Your task to perform on an android device: turn off notifications settings in the gmail app Image 0: 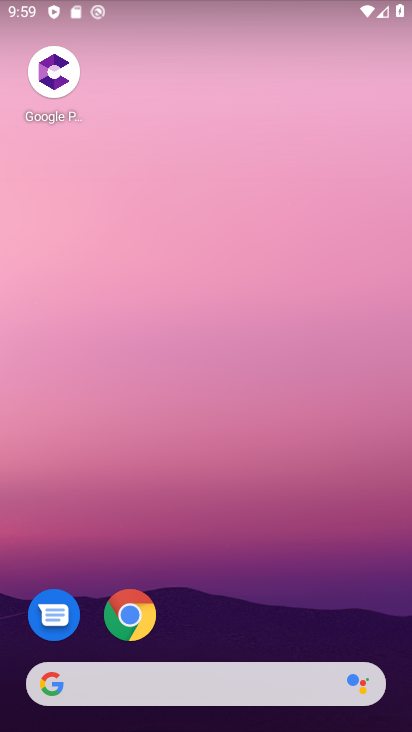
Step 0: click (192, 629)
Your task to perform on an android device: turn off notifications settings in the gmail app Image 1: 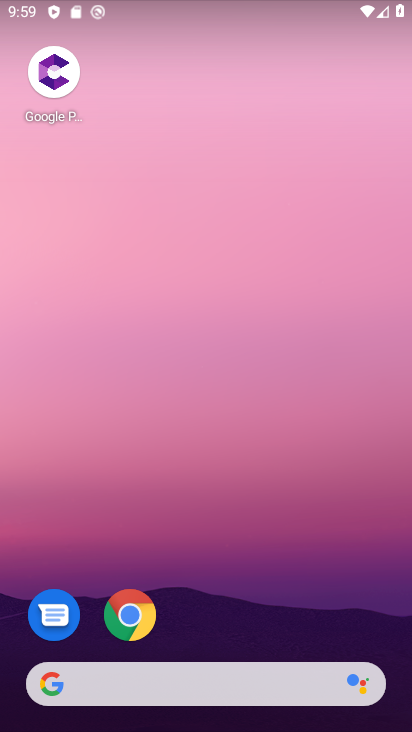
Step 1: drag from (192, 629) to (252, 142)
Your task to perform on an android device: turn off notifications settings in the gmail app Image 2: 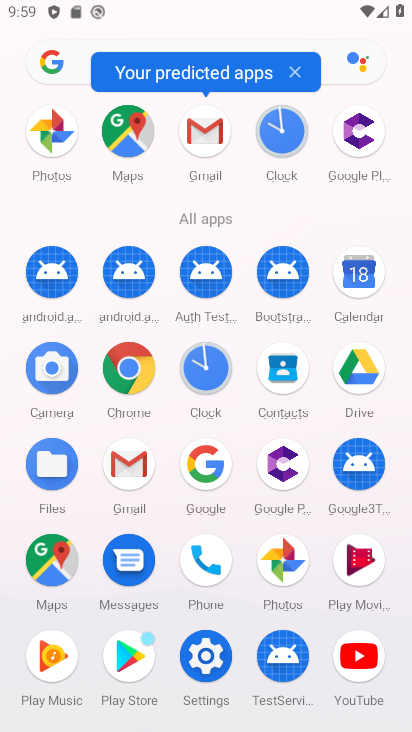
Step 2: click (204, 668)
Your task to perform on an android device: turn off notifications settings in the gmail app Image 3: 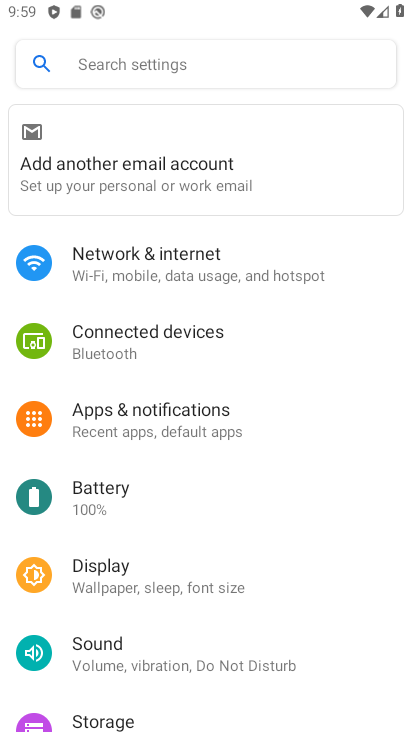
Step 3: click (237, 418)
Your task to perform on an android device: turn off notifications settings in the gmail app Image 4: 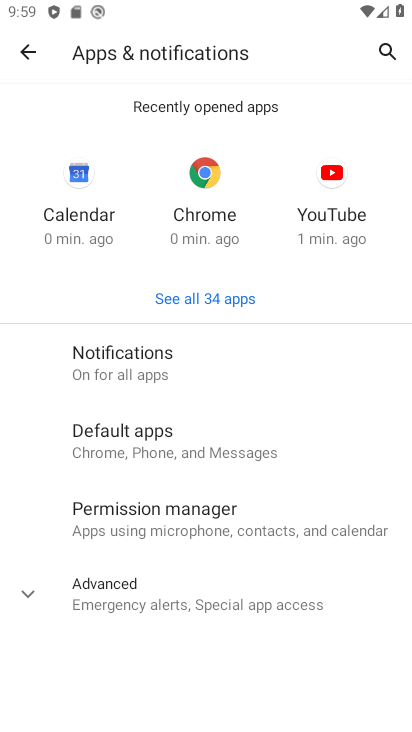
Step 4: click (172, 392)
Your task to perform on an android device: turn off notifications settings in the gmail app Image 5: 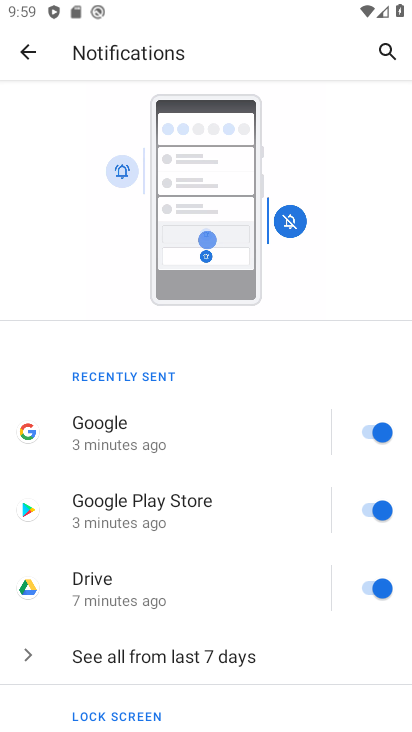
Step 5: drag from (95, 653) to (147, 205)
Your task to perform on an android device: turn off notifications settings in the gmail app Image 6: 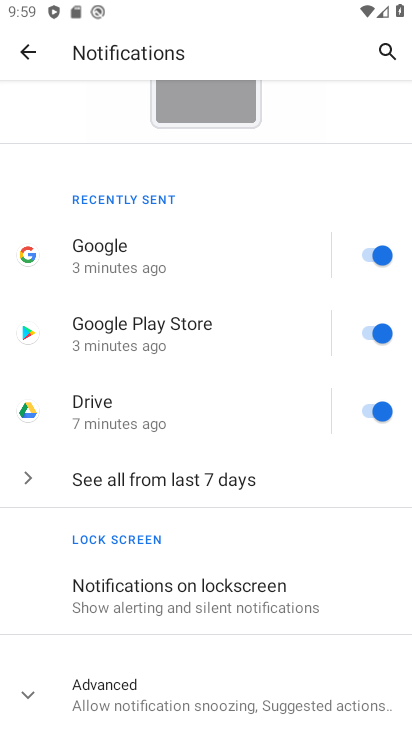
Step 6: click (167, 478)
Your task to perform on an android device: turn off notifications settings in the gmail app Image 7: 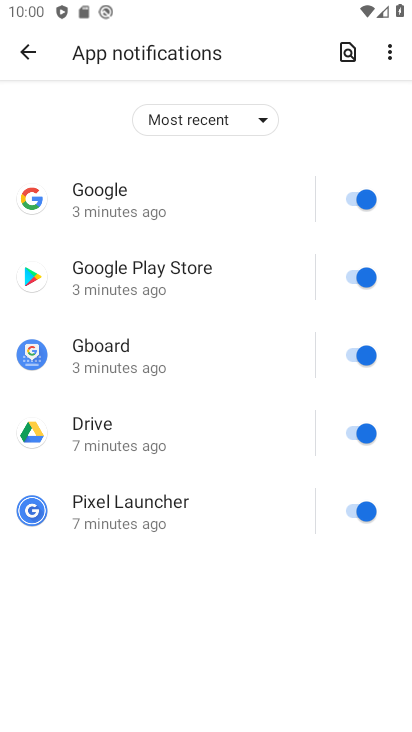
Step 7: press back button
Your task to perform on an android device: turn off notifications settings in the gmail app Image 8: 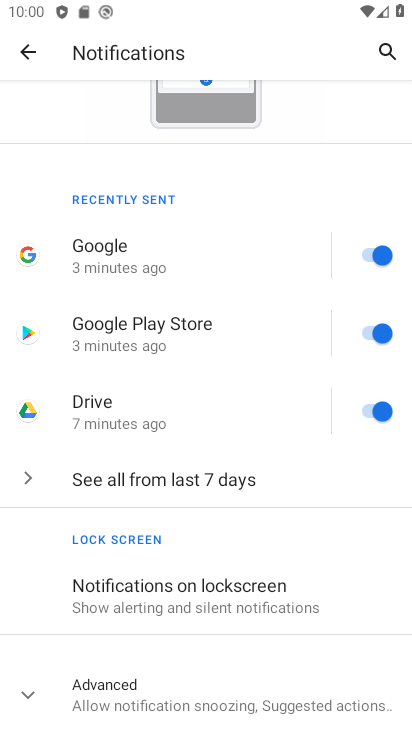
Step 8: click (30, 43)
Your task to perform on an android device: turn off notifications settings in the gmail app Image 9: 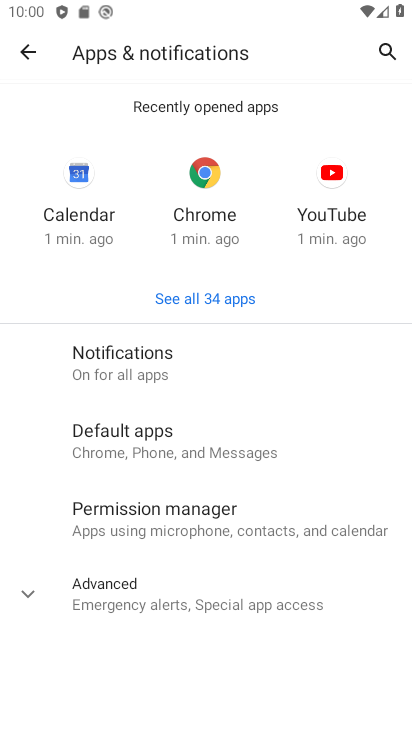
Step 9: click (218, 293)
Your task to perform on an android device: turn off notifications settings in the gmail app Image 10: 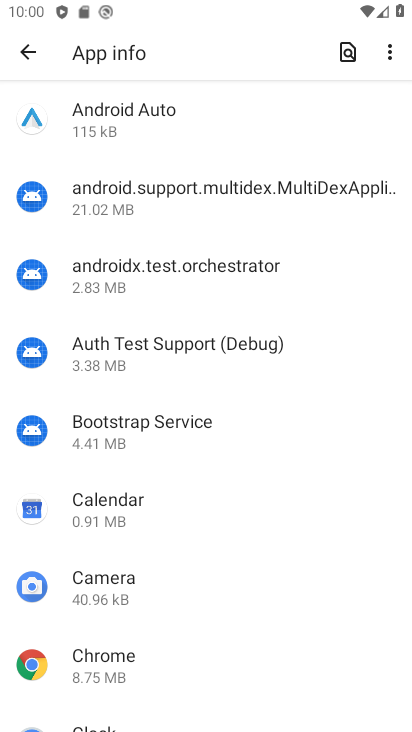
Step 10: drag from (85, 625) to (174, 163)
Your task to perform on an android device: turn off notifications settings in the gmail app Image 11: 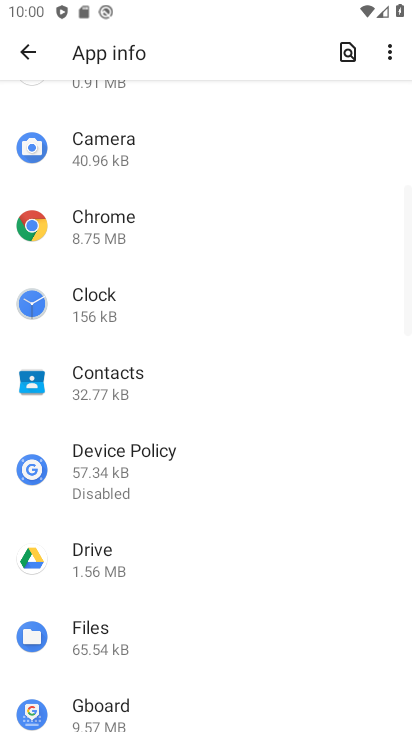
Step 11: drag from (92, 672) to (267, 128)
Your task to perform on an android device: turn off notifications settings in the gmail app Image 12: 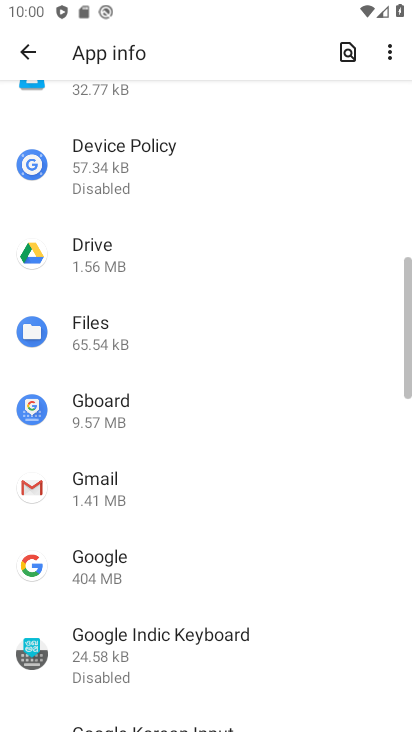
Step 12: click (100, 476)
Your task to perform on an android device: turn off notifications settings in the gmail app Image 13: 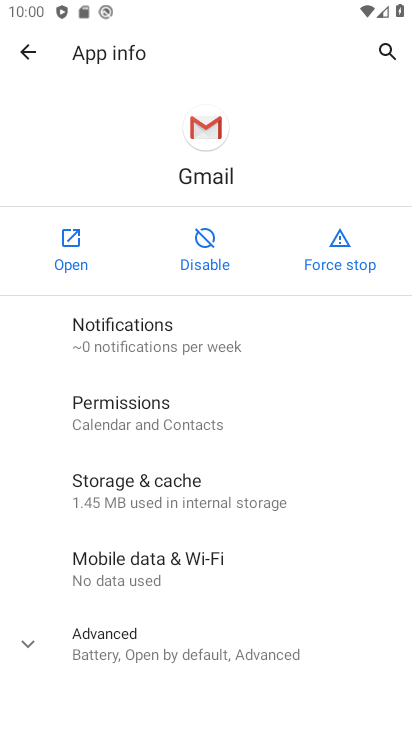
Step 13: click (206, 341)
Your task to perform on an android device: turn off notifications settings in the gmail app Image 14: 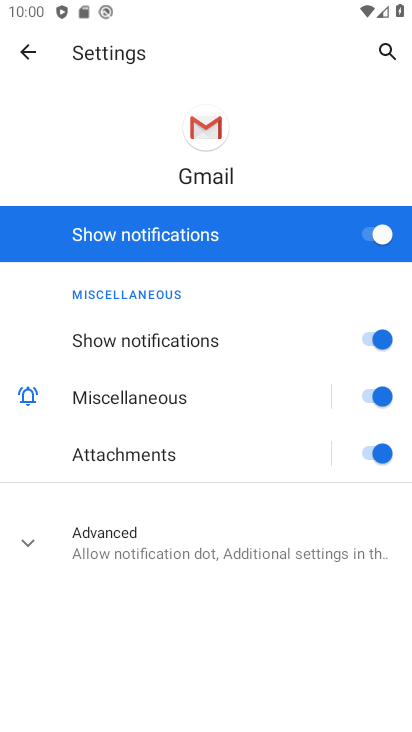
Step 14: click (383, 246)
Your task to perform on an android device: turn off notifications settings in the gmail app Image 15: 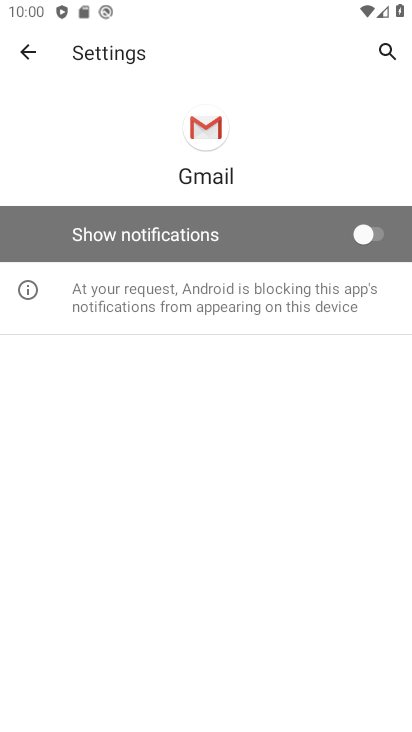
Step 15: task complete